Your task to perform on an android device: What's the weather? Image 0: 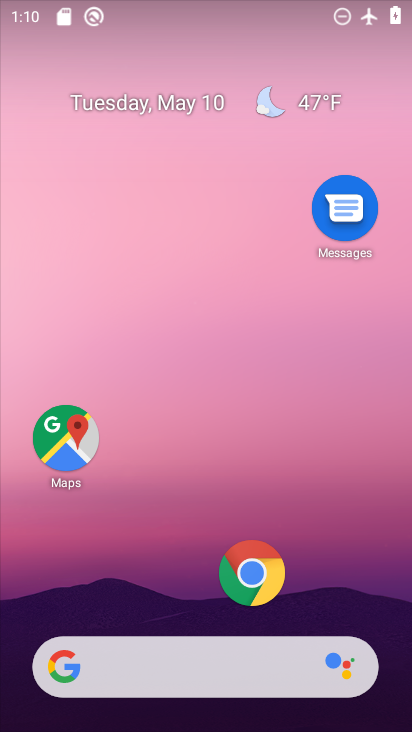
Step 0: drag from (189, 490) to (250, 107)
Your task to perform on an android device: What's the weather? Image 1: 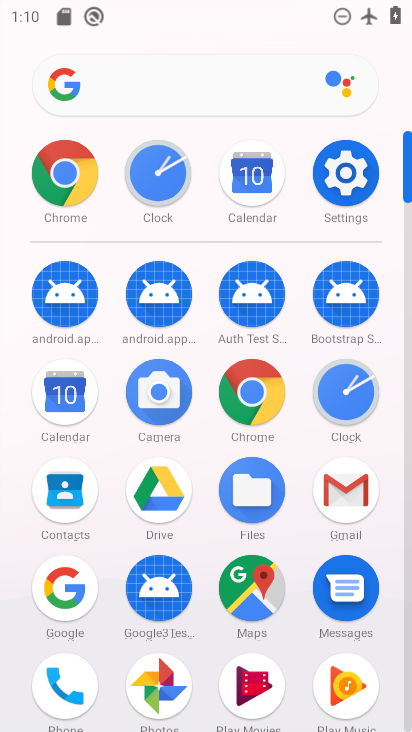
Step 1: drag from (206, 581) to (214, 227)
Your task to perform on an android device: What's the weather? Image 2: 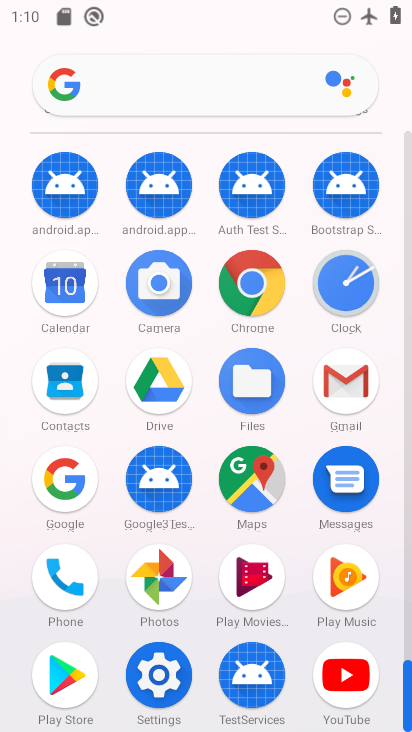
Step 2: click (144, 107)
Your task to perform on an android device: What's the weather? Image 3: 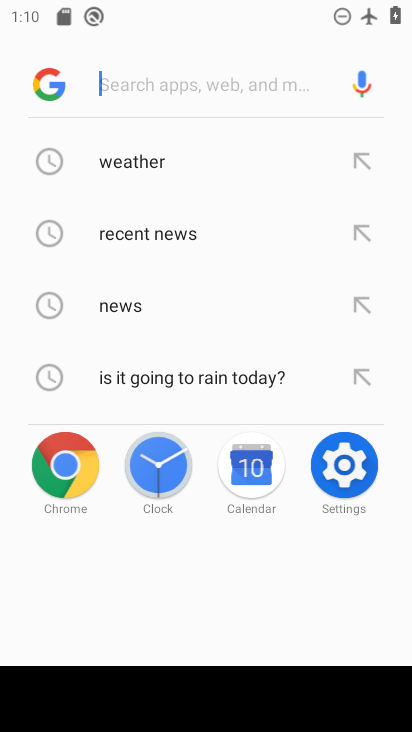
Step 3: click (111, 158)
Your task to perform on an android device: What's the weather? Image 4: 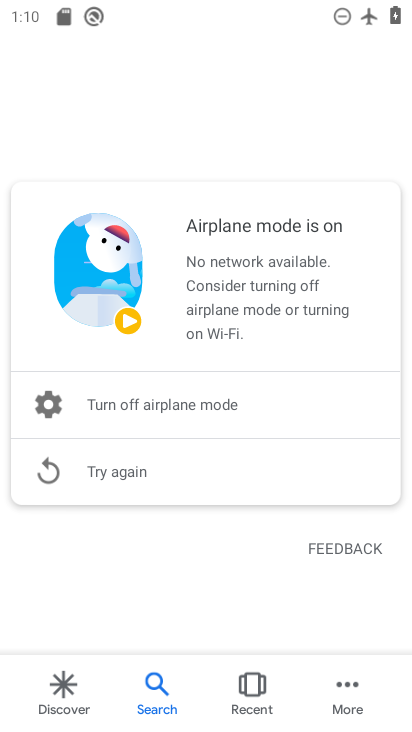
Step 4: task complete